Your task to perform on an android device: Open ESPN.com Image 0: 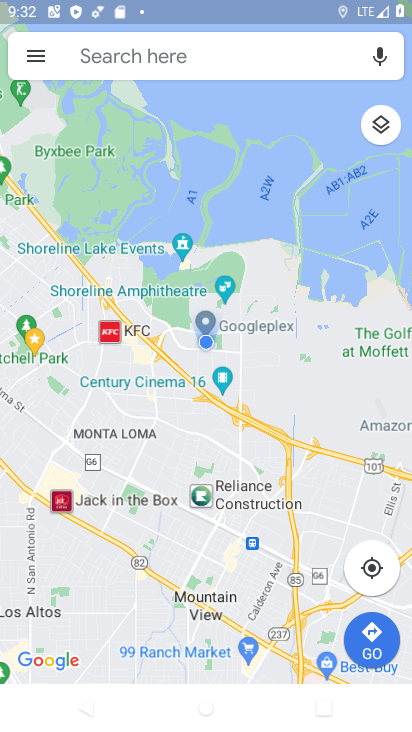
Step 0: press back button
Your task to perform on an android device: Open ESPN.com Image 1: 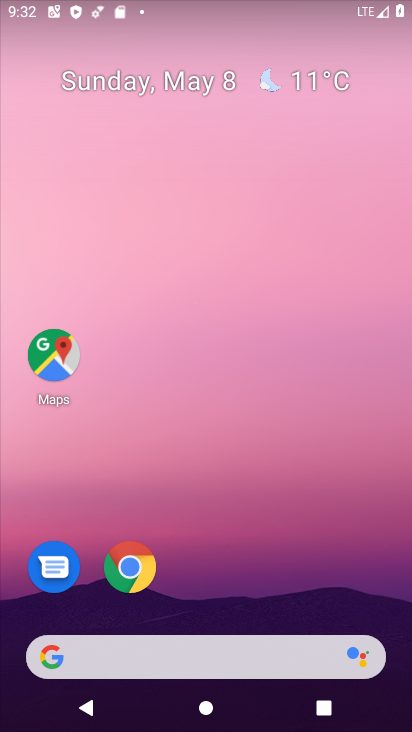
Step 1: click (120, 573)
Your task to perform on an android device: Open ESPN.com Image 2: 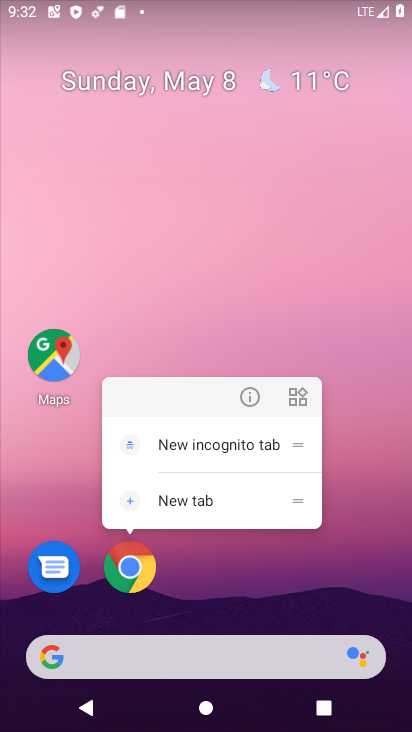
Step 2: click (128, 572)
Your task to perform on an android device: Open ESPN.com Image 3: 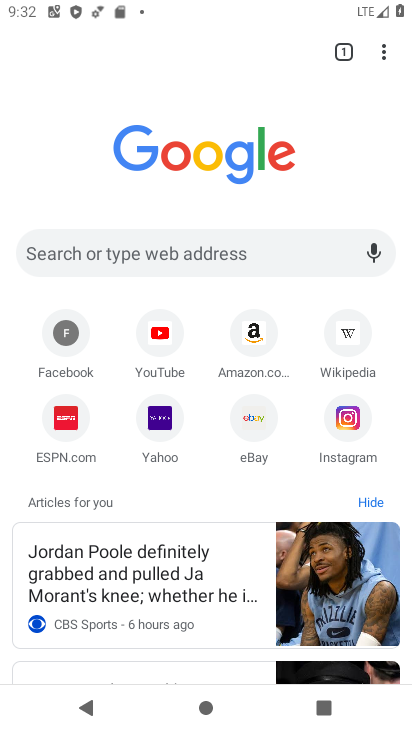
Step 3: click (37, 432)
Your task to perform on an android device: Open ESPN.com Image 4: 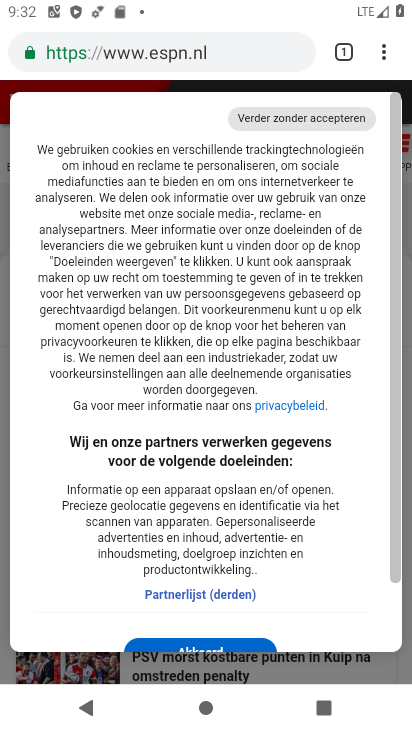
Step 4: task complete